Your task to perform on an android device: Is it going to rain today? Image 0: 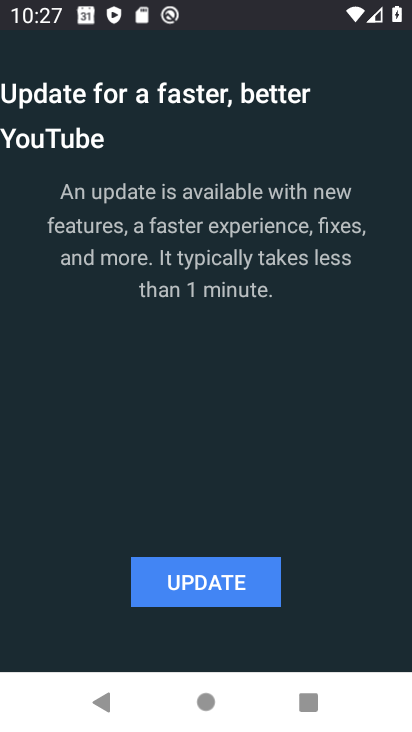
Step 0: press home button
Your task to perform on an android device: Is it going to rain today? Image 1: 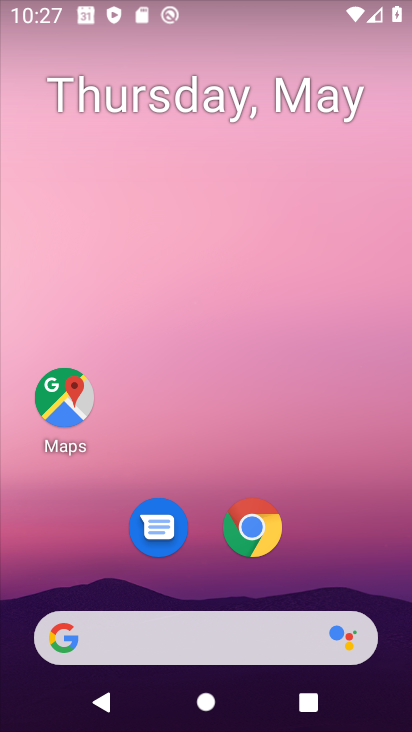
Step 1: drag from (230, 699) to (226, 152)
Your task to perform on an android device: Is it going to rain today? Image 2: 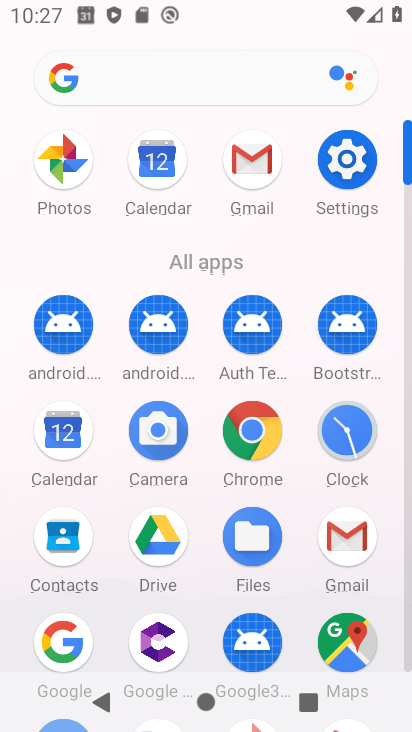
Step 2: click (64, 639)
Your task to perform on an android device: Is it going to rain today? Image 3: 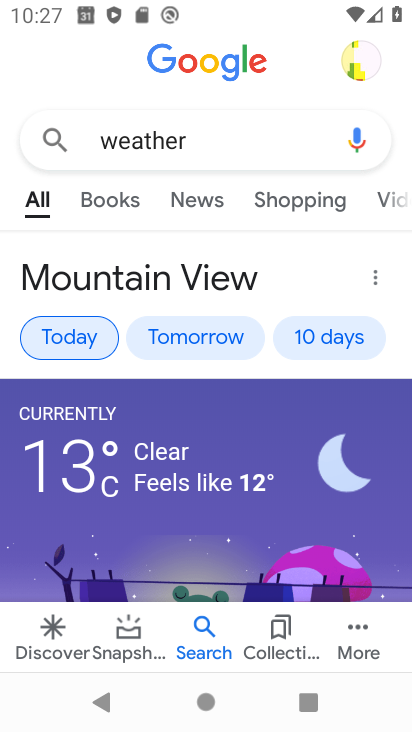
Step 3: task complete